Your task to perform on an android device: uninstall "Pluto TV - Live TV and Movies" Image 0: 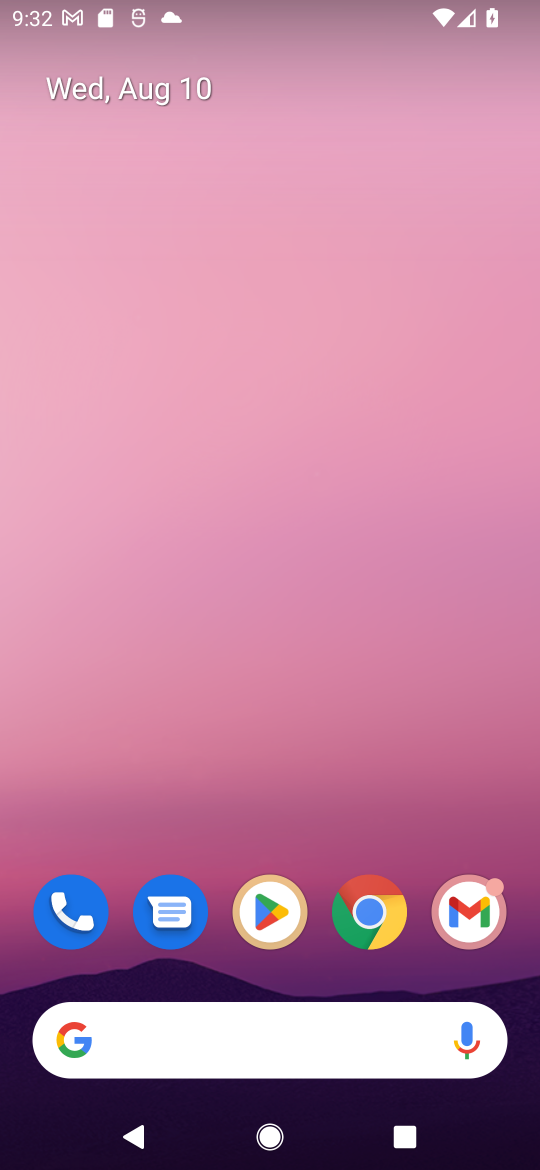
Step 0: drag from (528, 971) to (285, 102)
Your task to perform on an android device: uninstall "Pluto TV - Live TV and Movies" Image 1: 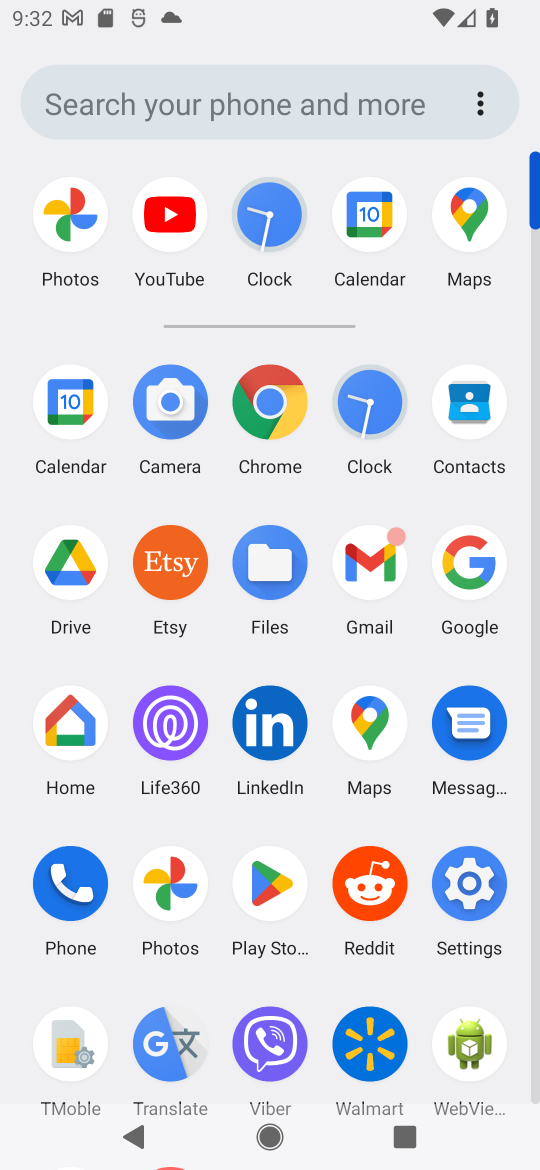
Step 1: click (283, 878)
Your task to perform on an android device: uninstall "Pluto TV - Live TV and Movies" Image 2: 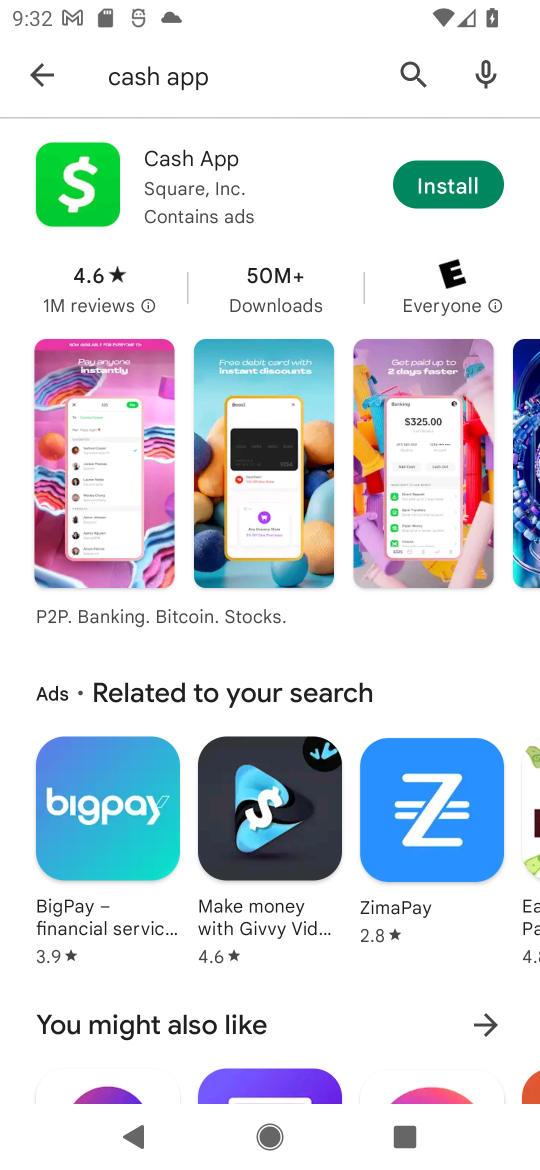
Step 2: press back button
Your task to perform on an android device: uninstall "Pluto TV - Live TV and Movies" Image 3: 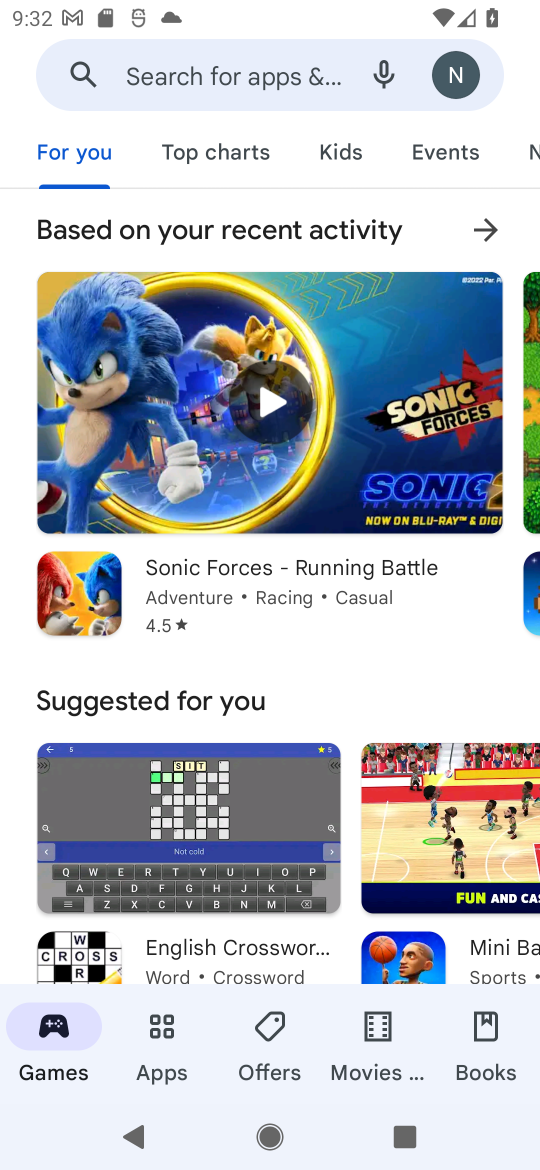
Step 3: click (164, 77)
Your task to perform on an android device: uninstall "Pluto TV - Live TV and Movies" Image 4: 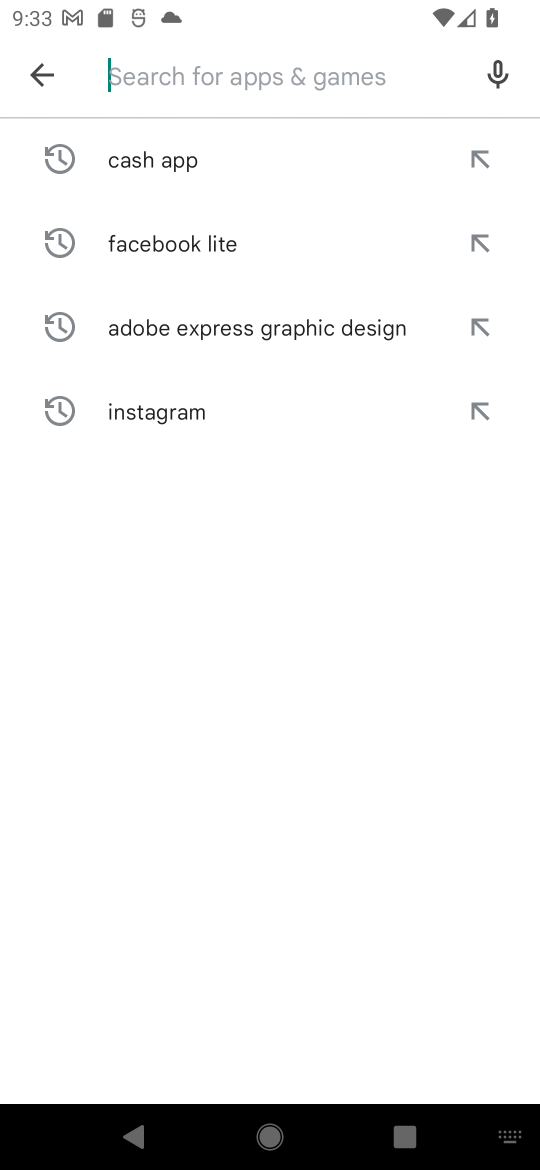
Step 4: type "Pluto TV - Live TV and Movies"
Your task to perform on an android device: uninstall "Pluto TV - Live TV and Movies" Image 5: 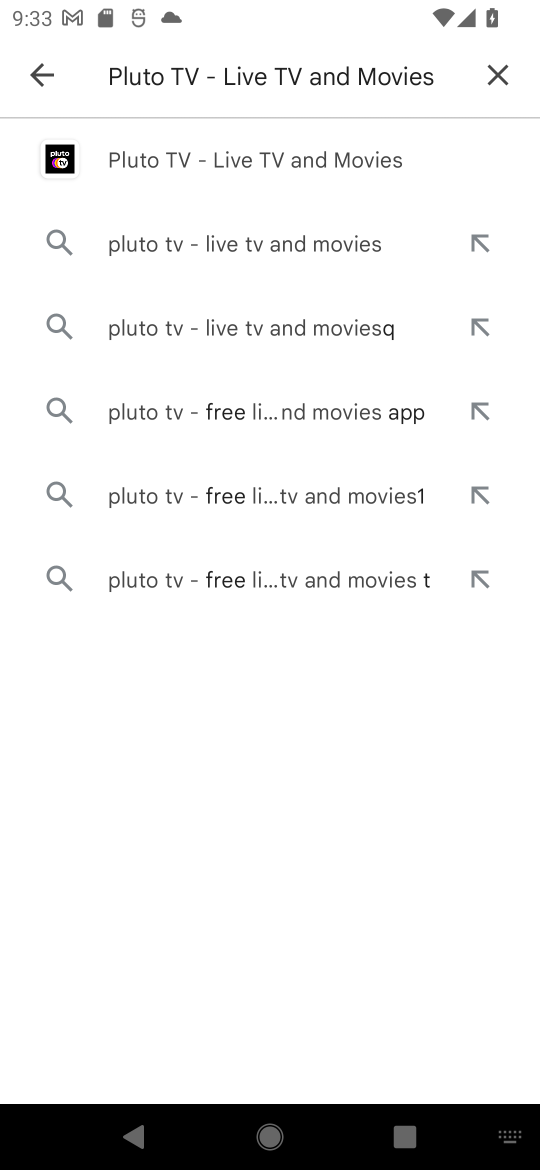
Step 5: click (301, 192)
Your task to perform on an android device: uninstall "Pluto TV - Live TV and Movies" Image 6: 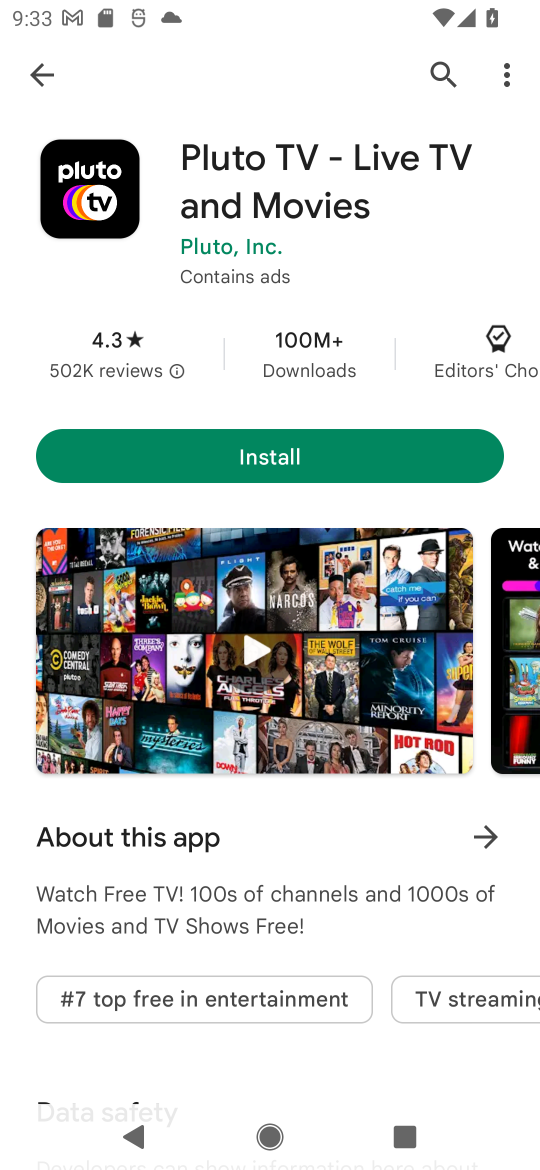
Step 6: task complete